Your task to perform on an android device: change your default location settings in chrome Image 0: 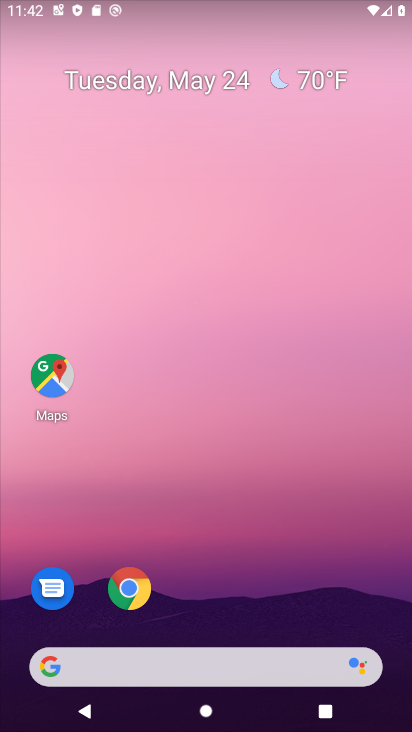
Step 0: click (129, 583)
Your task to perform on an android device: change your default location settings in chrome Image 1: 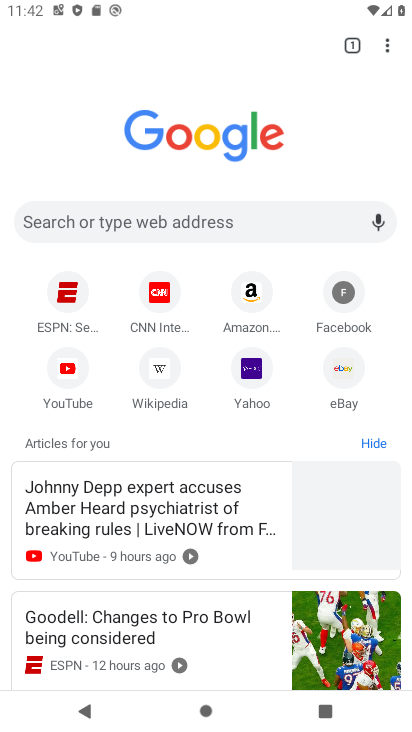
Step 1: click (386, 43)
Your task to perform on an android device: change your default location settings in chrome Image 2: 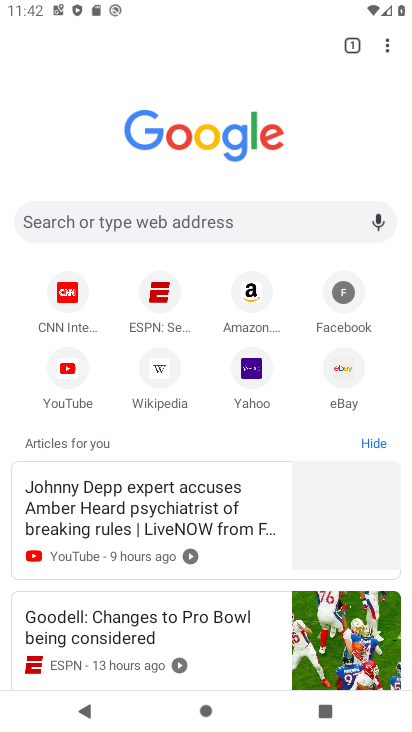
Step 2: click (386, 44)
Your task to perform on an android device: change your default location settings in chrome Image 3: 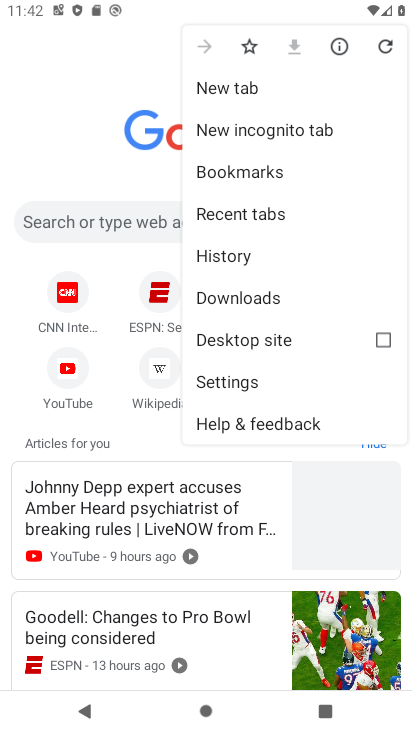
Step 3: click (267, 382)
Your task to perform on an android device: change your default location settings in chrome Image 4: 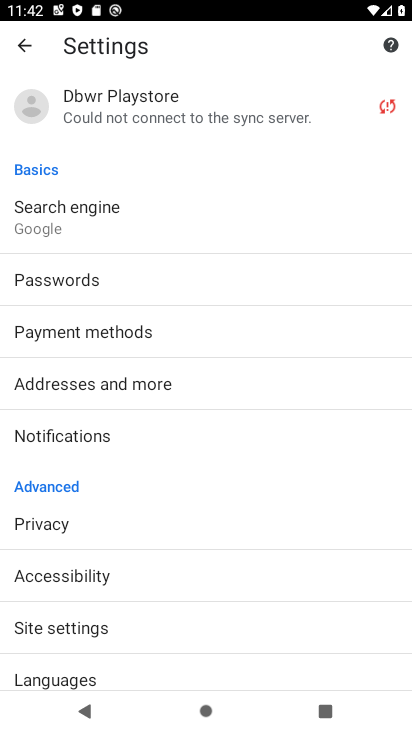
Step 4: click (120, 629)
Your task to perform on an android device: change your default location settings in chrome Image 5: 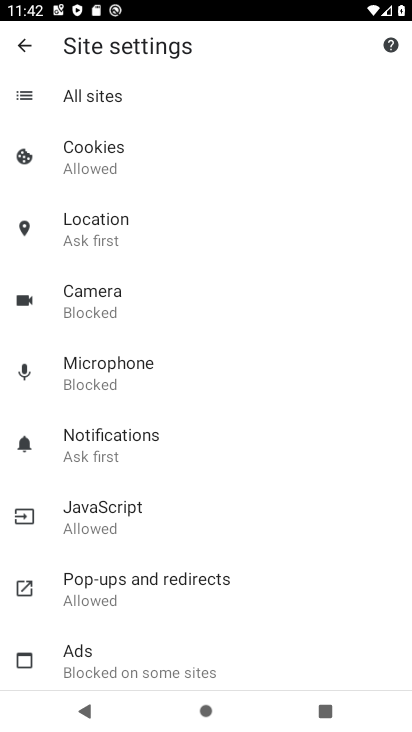
Step 5: click (137, 226)
Your task to perform on an android device: change your default location settings in chrome Image 6: 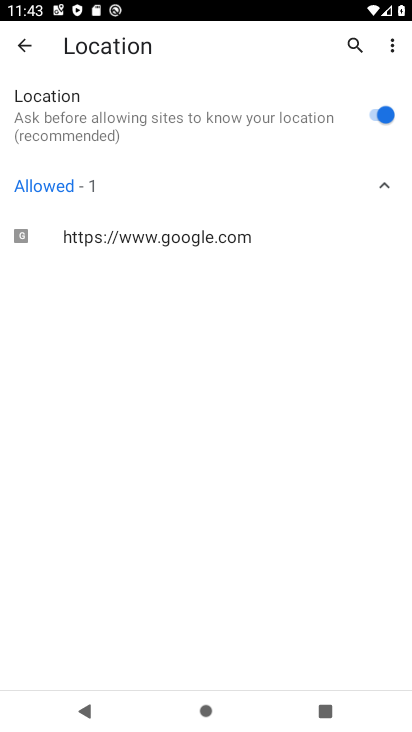
Step 6: click (377, 110)
Your task to perform on an android device: change your default location settings in chrome Image 7: 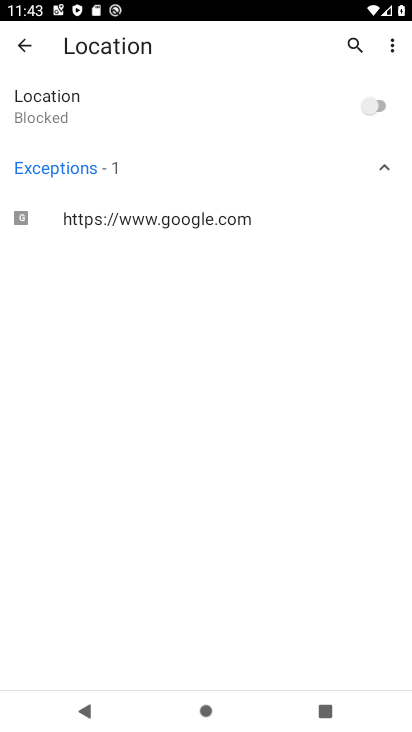
Step 7: task complete